Your task to perform on an android device: refresh tabs in the chrome app Image 0: 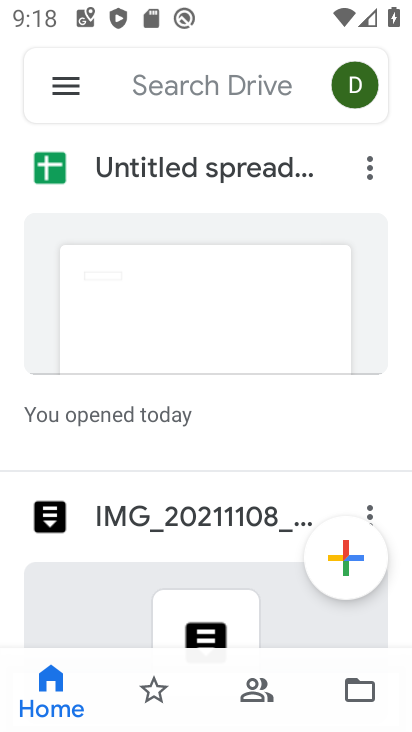
Step 0: press home button
Your task to perform on an android device: refresh tabs in the chrome app Image 1: 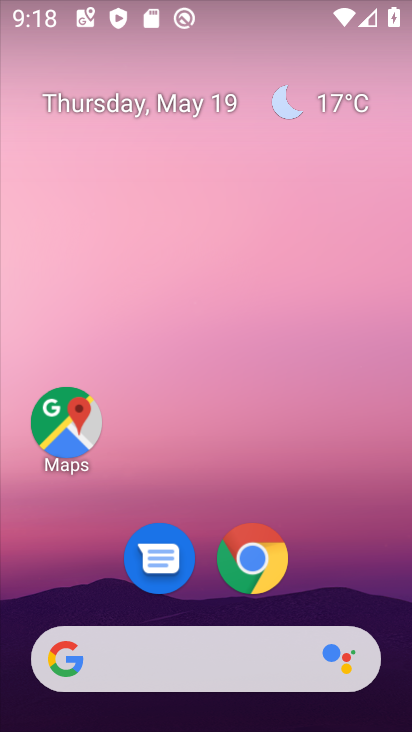
Step 1: click (252, 553)
Your task to perform on an android device: refresh tabs in the chrome app Image 2: 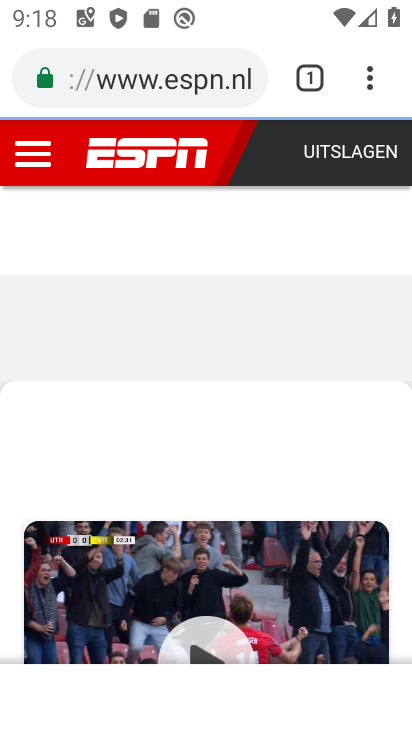
Step 2: click (368, 85)
Your task to perform on an android device: refresh tabs in the chrome app Image 3: 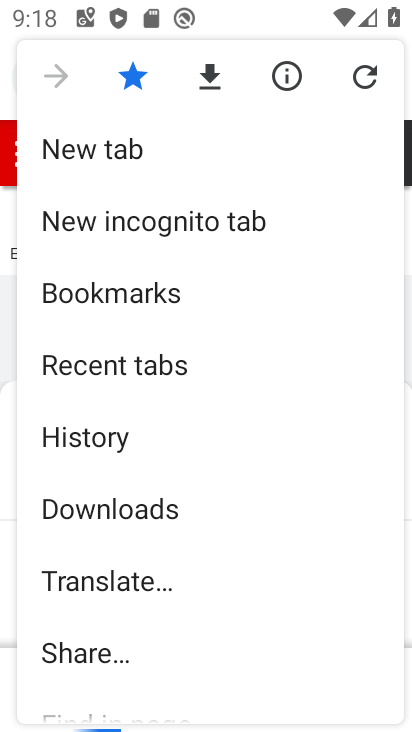
Step 3: click (366, 72)
Your task to perform on an android device: refresh tabs in the chrome app Image 4: 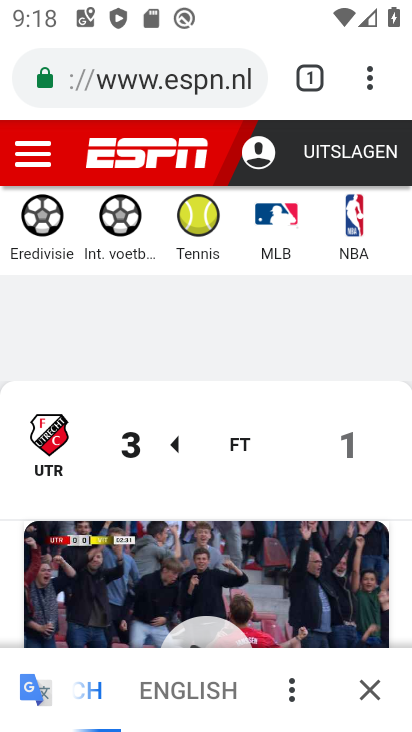
Step 4: task complete